Your task to perform on an android device: Show the shopping cart on costco.com. Search for jbl charge 4 on costco.com, select the first entry, add it to the cart, then select checkout. Image 0: 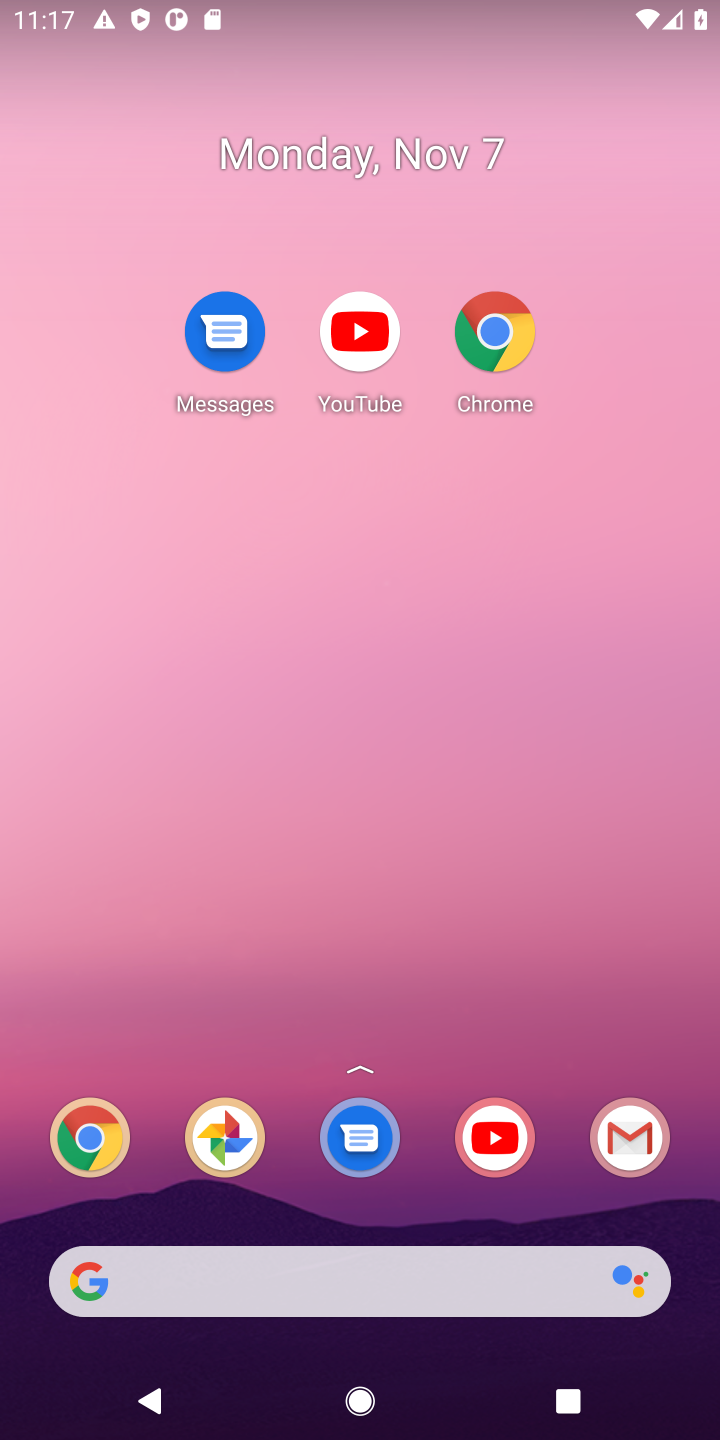
Step 0: drag from (444, 1218) to (378, 267)
Your task to perform on an android device: Show the shopping cart on costco.com. Search for jbl charge 4 on costco.com, select the first entry, add it to the cart, then select checkout. Image 1: 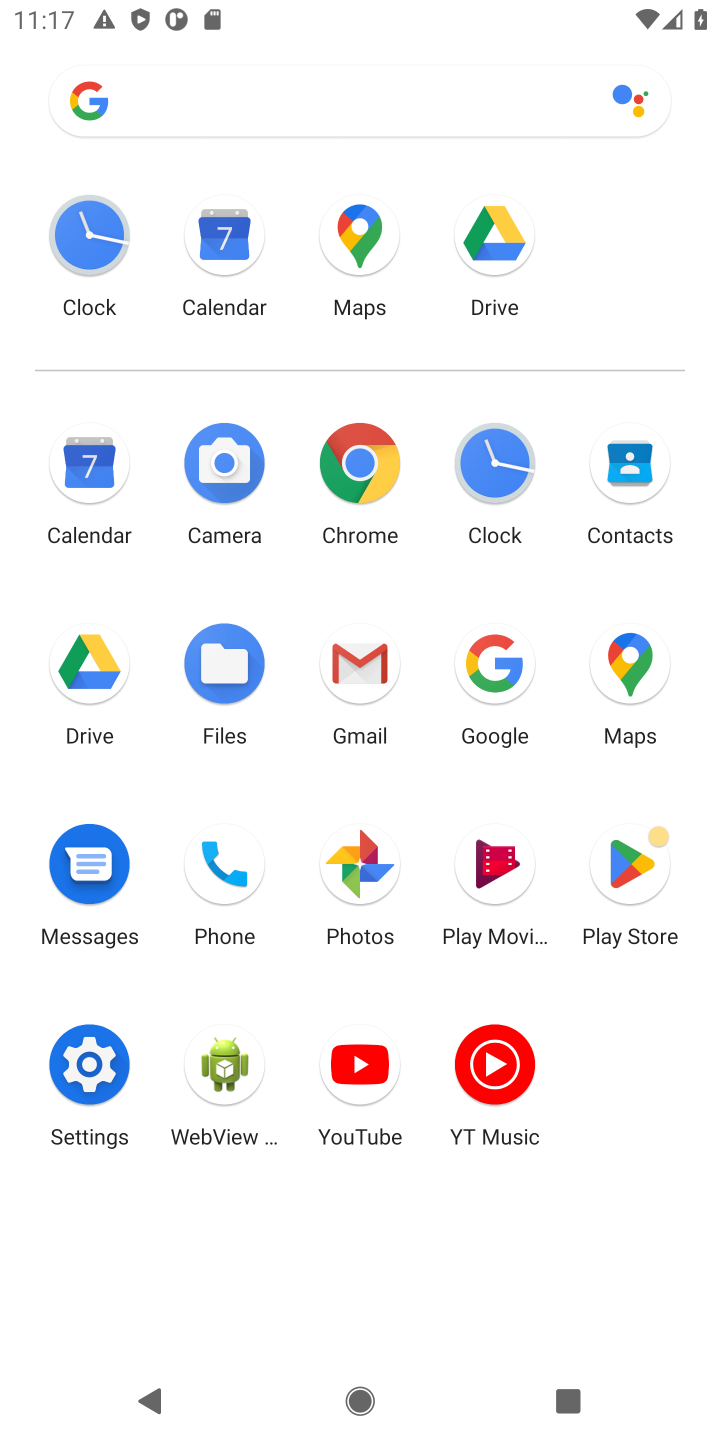
Step 1: click (364, 463)
Your task to perform on an android device: Show the shopping cart on costco.com. Search for jbl charge 4 on costco.com, select the first entry, add it to the cart, then select checkout. Image 2: 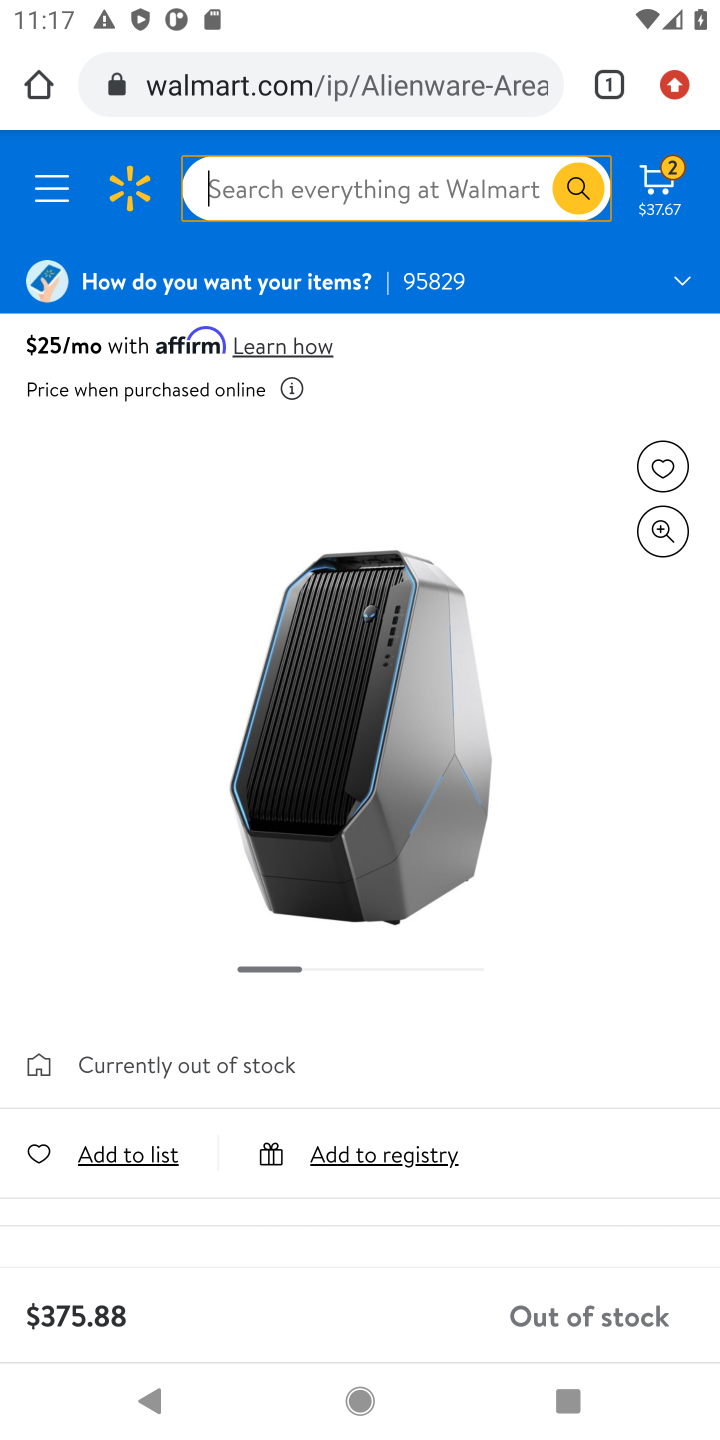
Step 2: click (458, 76)
Your task to perform on an android device: Show the shopping cart on costco.com. Search for jbl charge 4 on costco.com, select the first entry, add it to the cart, then select checkout. Image 3: 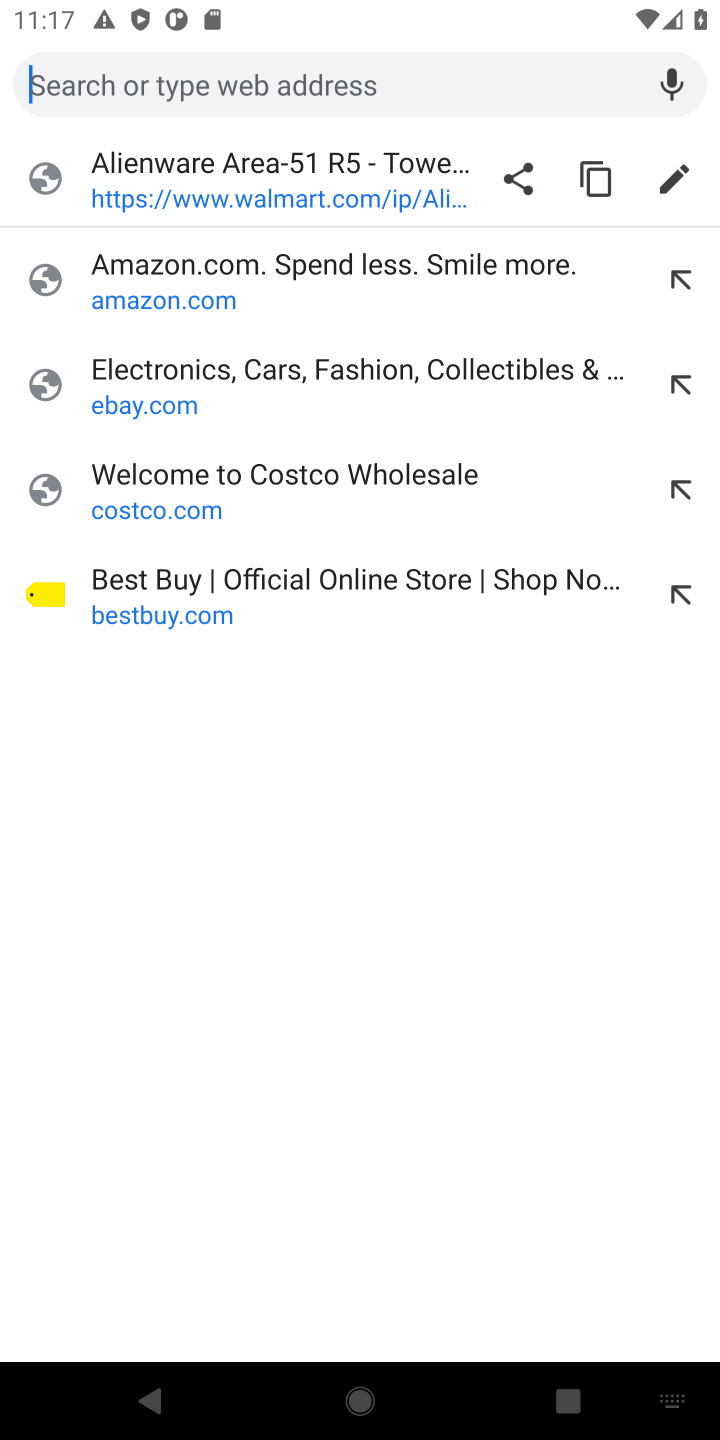
Step 3: type "costco.com"
Your task to perform on an android device: Show the shopping cart on costco.com. Search for jbl charge 4 on costco.com, select the first entry, add it to the cart, then select checkout. Image 4: 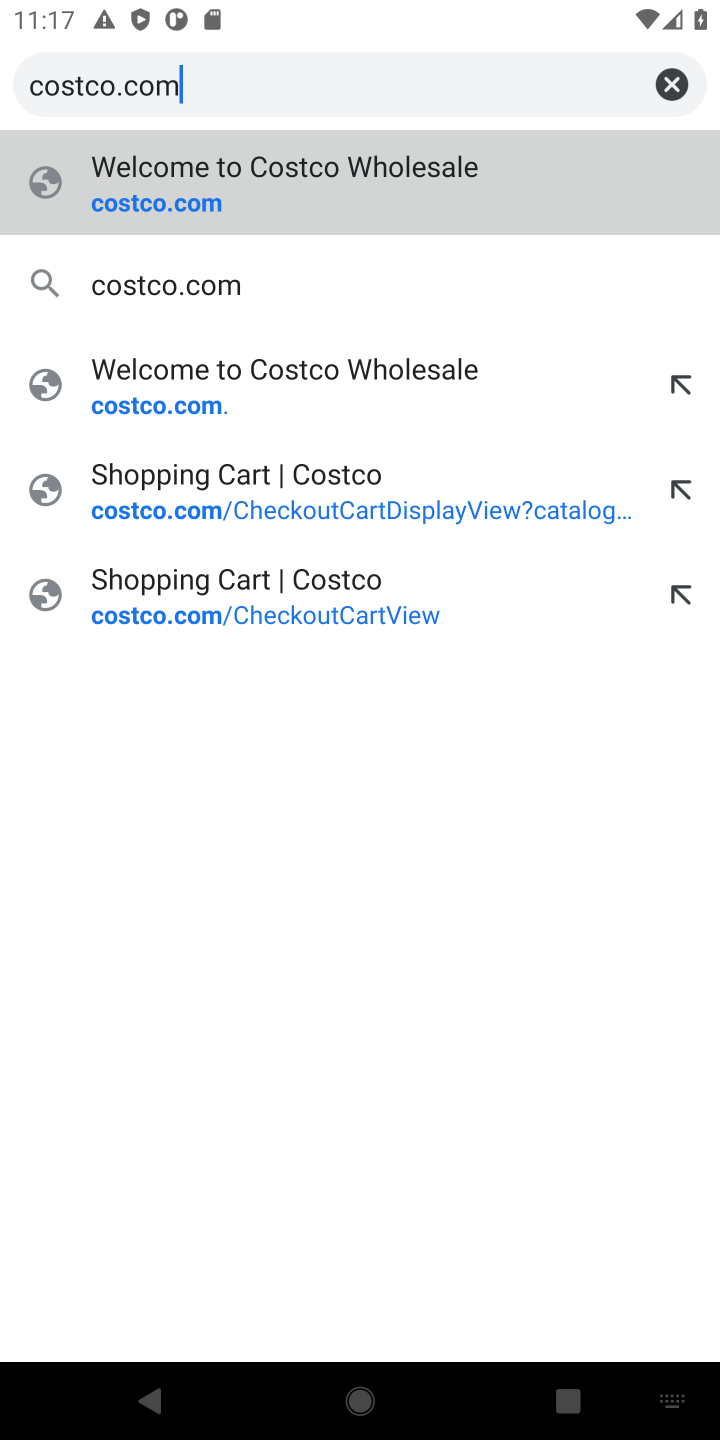
Step 4: press enter
Your task to perform on an android device: Show the shopping cart on costco.com. Search for jbl charge 4 on costco.com, select the first entry, add it to the cart, then select checkout. Image 5: 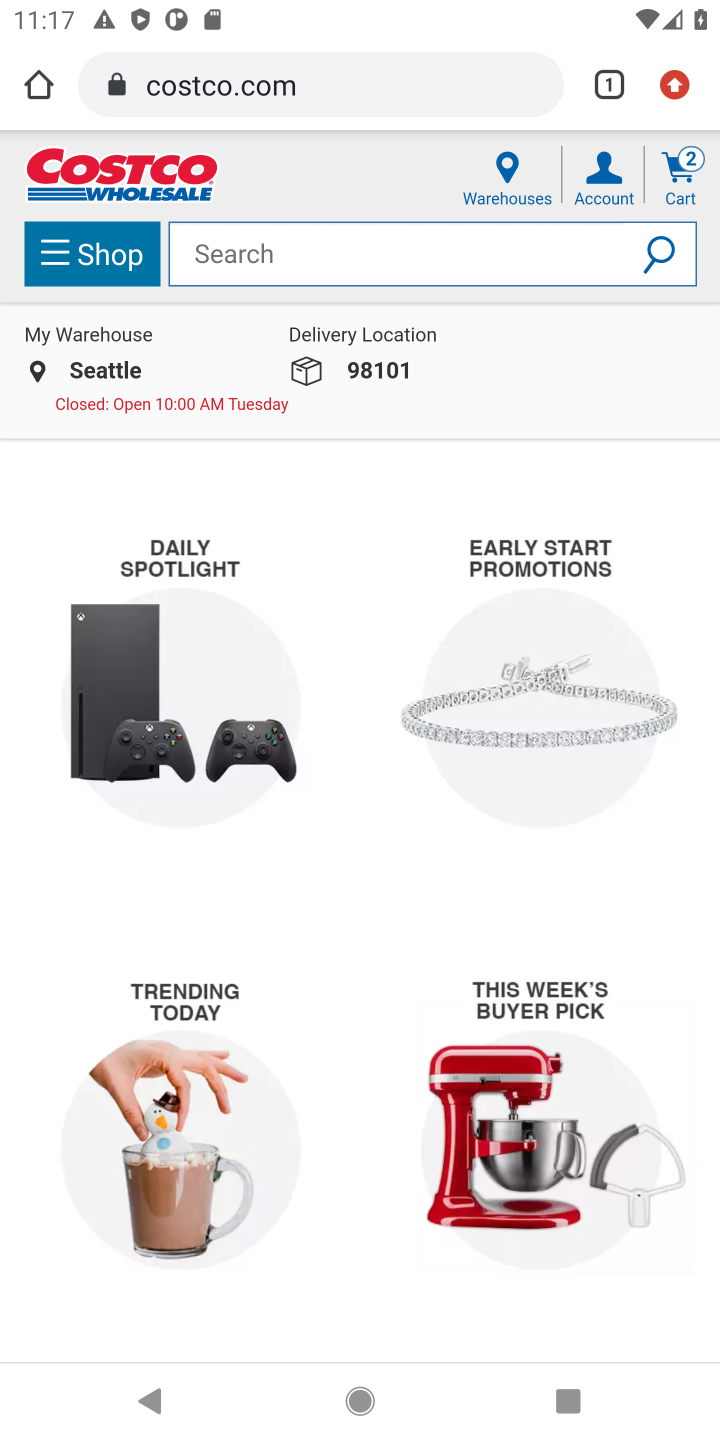
Step 5: click (690, 162)
Your task to perform on an android device: Show the shopping cart on costco.com. Search for jbl charge 4 on costco.com, select the first entry, add it to the cart, then select checkout. Image 6: 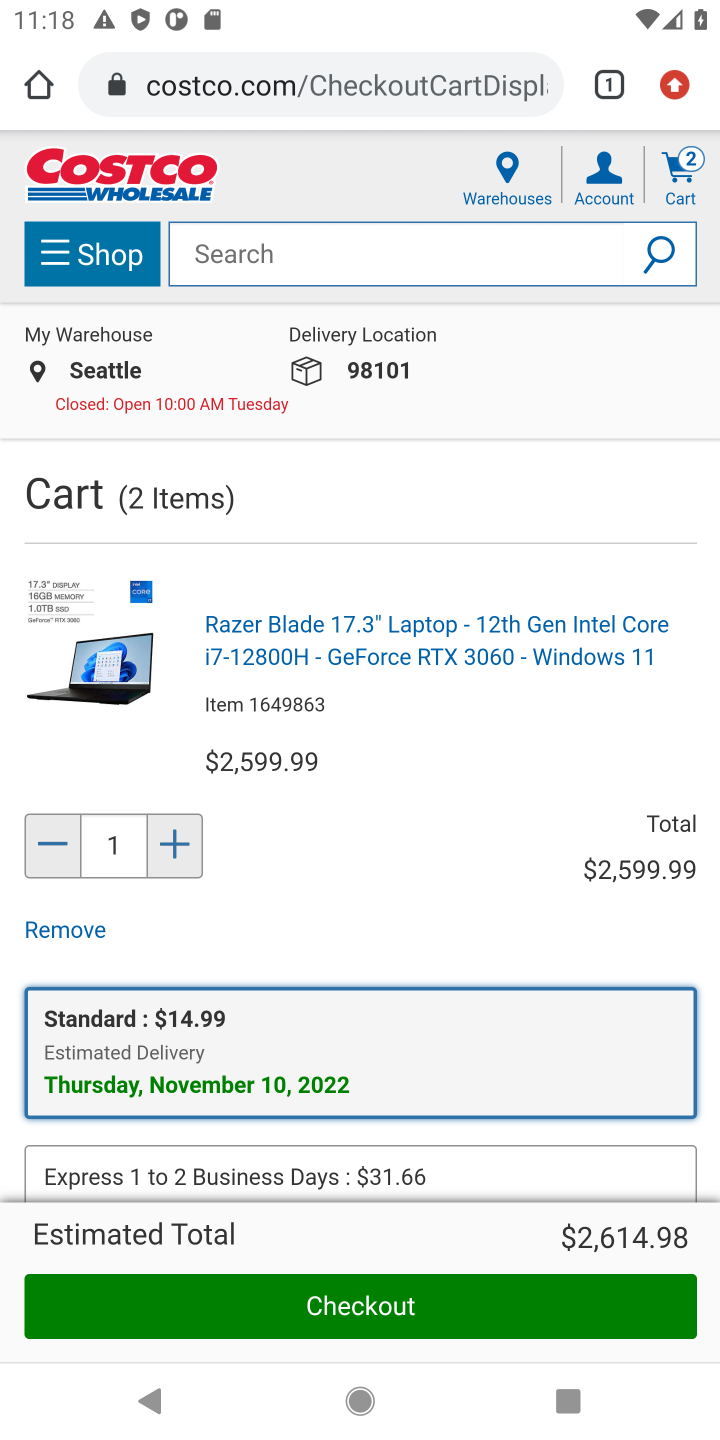
Step 6: click (683, 181)
Your task to perform on an android device: Show the shopping cart on costco.com. Search for jbl charge 4 on costco.com, select the first entry, add it to the cart, then select checkout. Image 7: 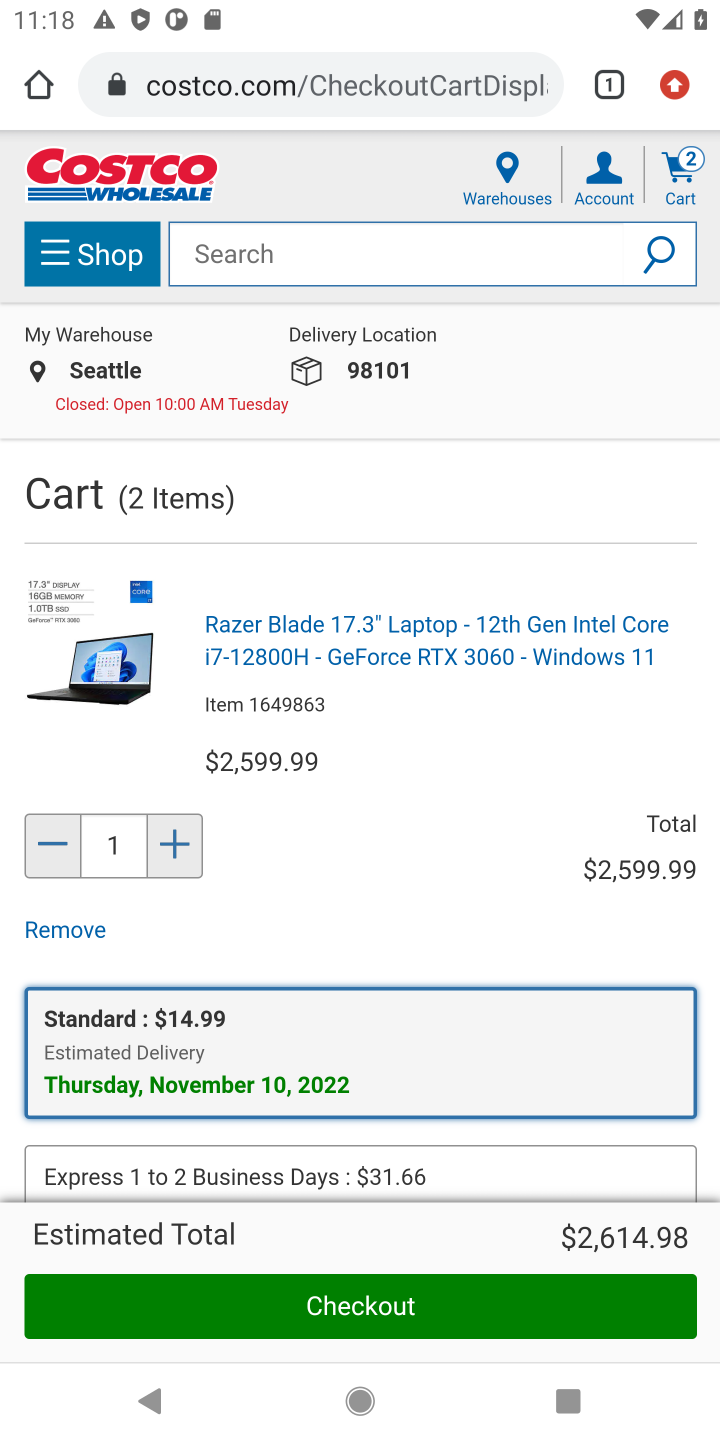
Step 7: click (480, 264)
Your task to perform on an android device: Show the shopping cart on costco.com. Search for jbl charge 4 on costco.com, select the first entry, add it to the cart, then select checkout. Image 8: 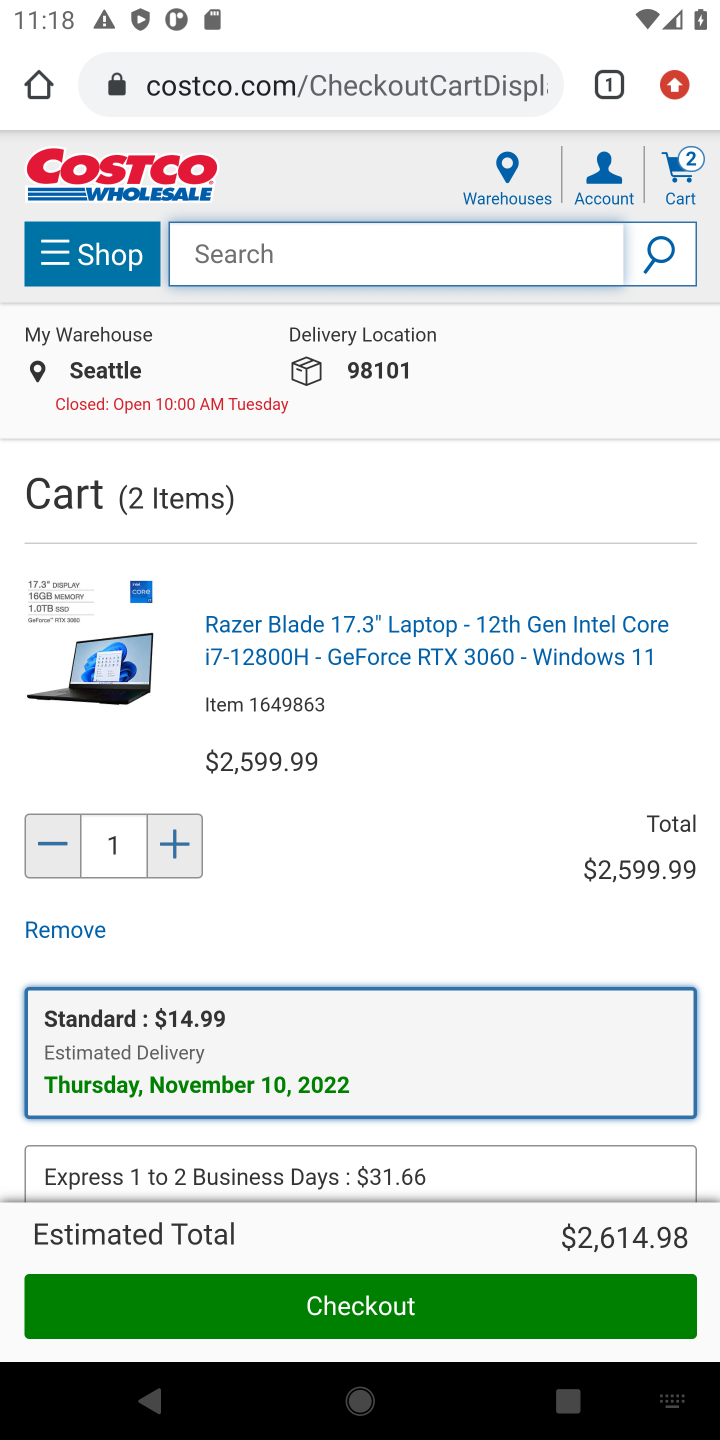
Step 8: type "jbl charge 4"
Your task to perform on an android device: Show the shopping cart on costco.com. Search for jbl charge 4 on costco.com, select the first entry, add it to the cart, then select checkout. Image 9: 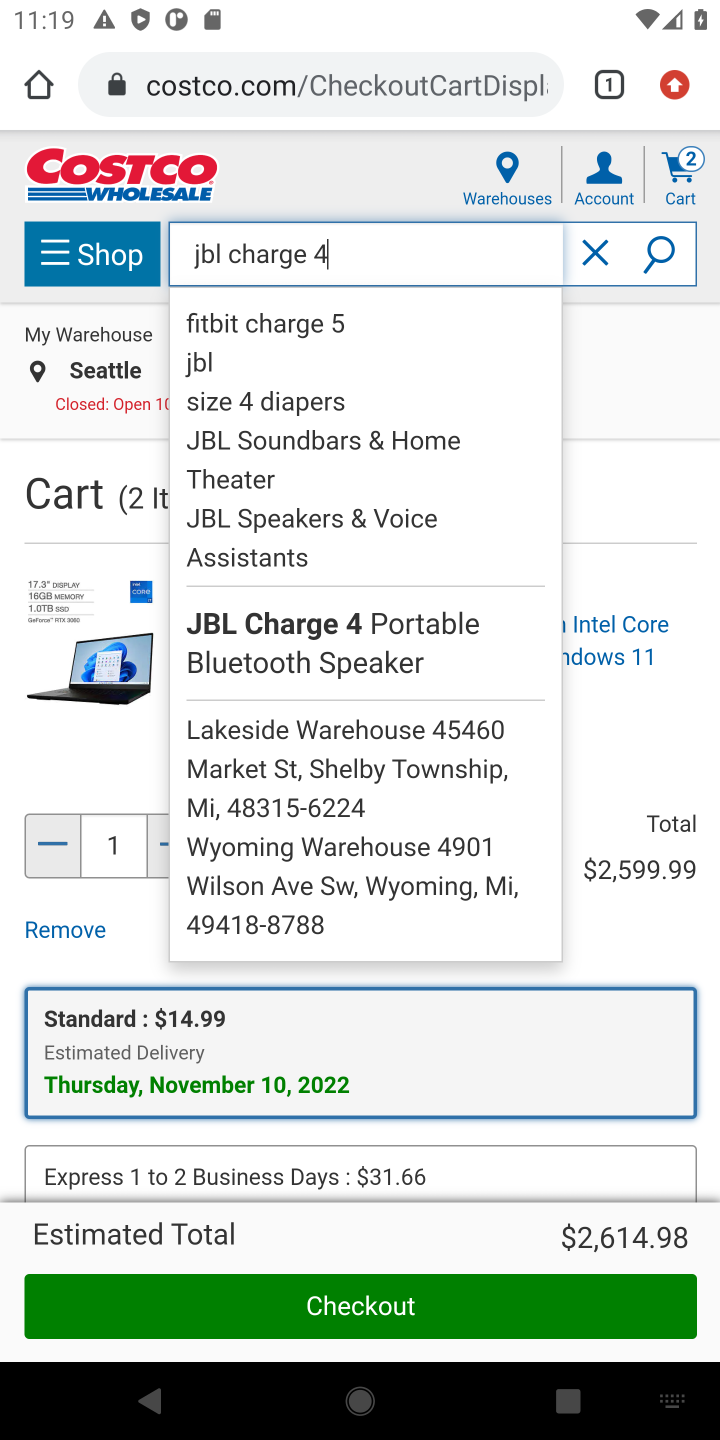
Step 9: press enter
Your task to perform on an android device: Show the shopping cart on costco.com. Search for jbl charge 4 on costco.com, select the first entry, add it to the cart, then select checkout. Image 10: 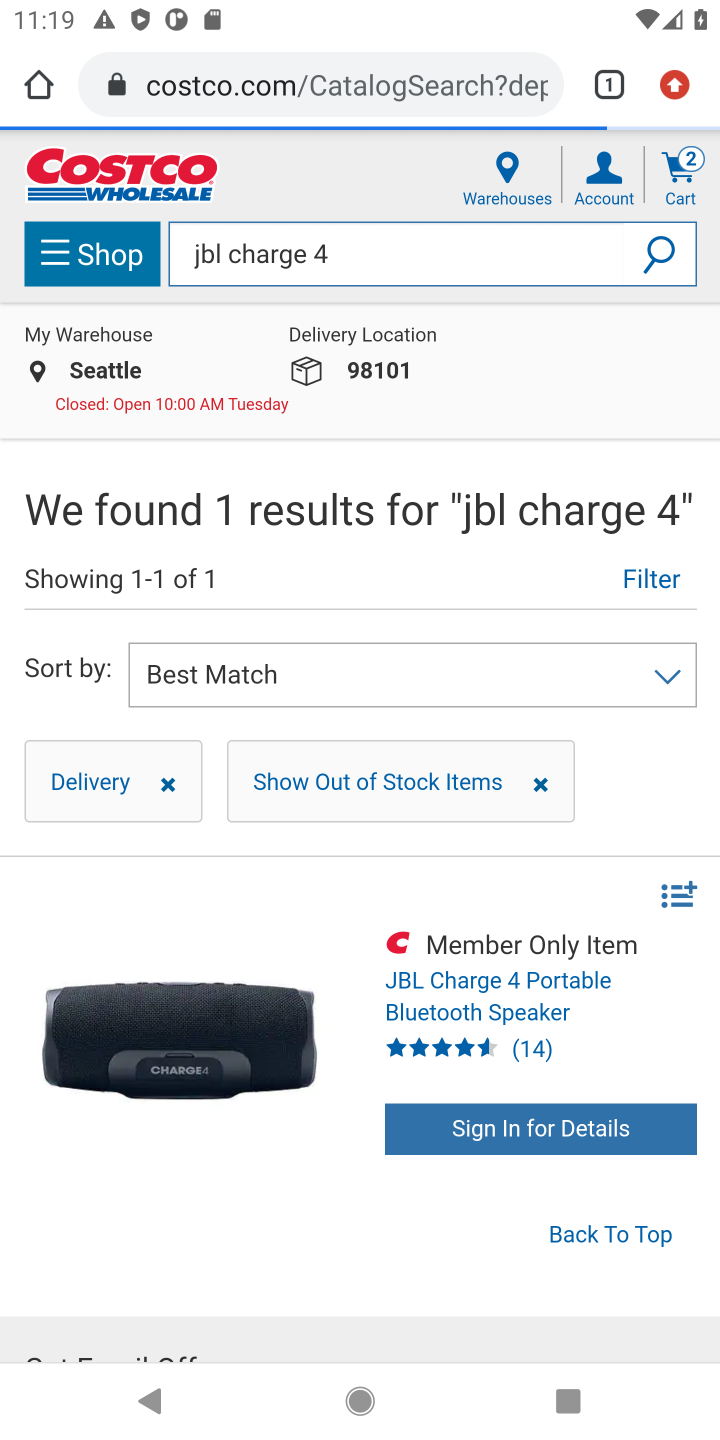
Step 10: drag from (595, 1078) to (542, 586)
Your task to perform on an android device: Show the shopping cart on costco.com. Search for jbl charge 4 on costco.com, select the first entry, add it to the cart, then select checkout. Image 11: 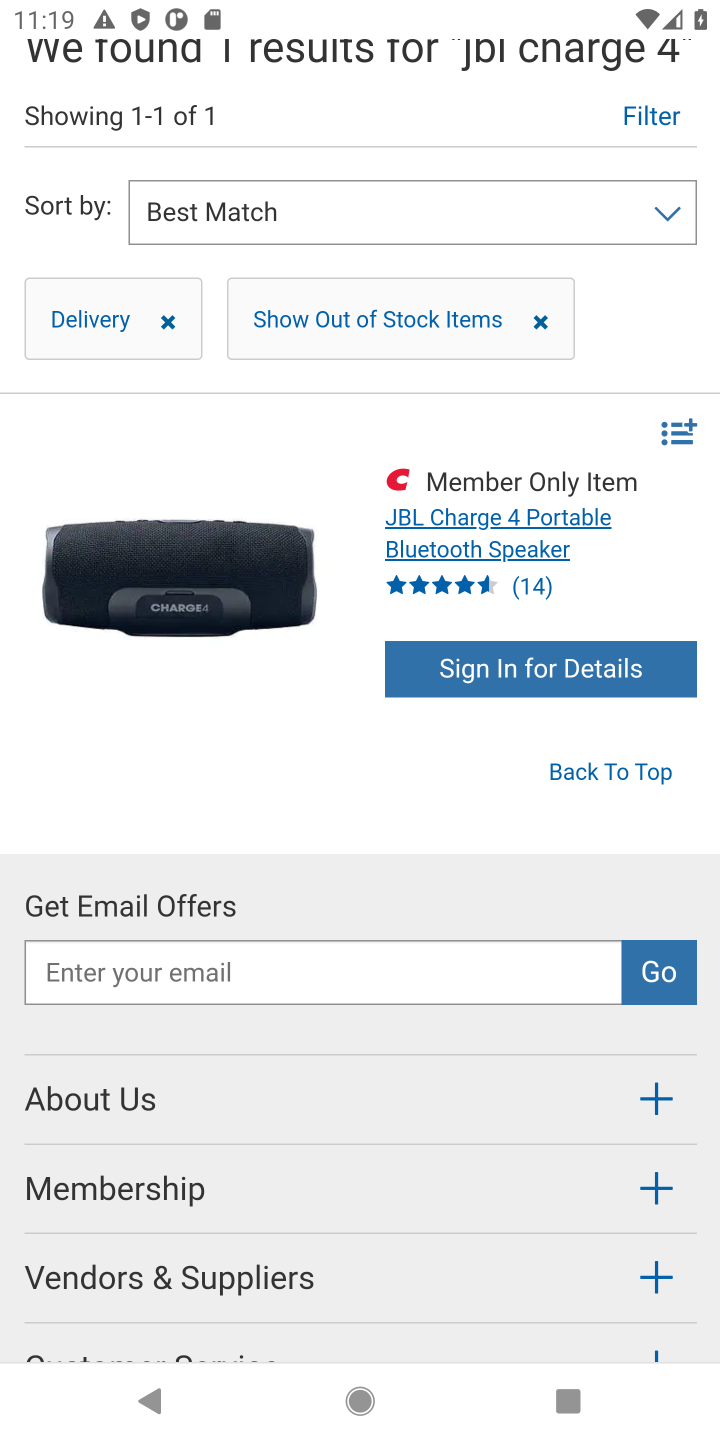
Step 11: click (466, 525)
Your task to perform on an android device: Show the shopping cart on costco.com. Search for jbl charge 4 on costco.com, select the first entry, add it to the cart, then select checkout. Image 12: 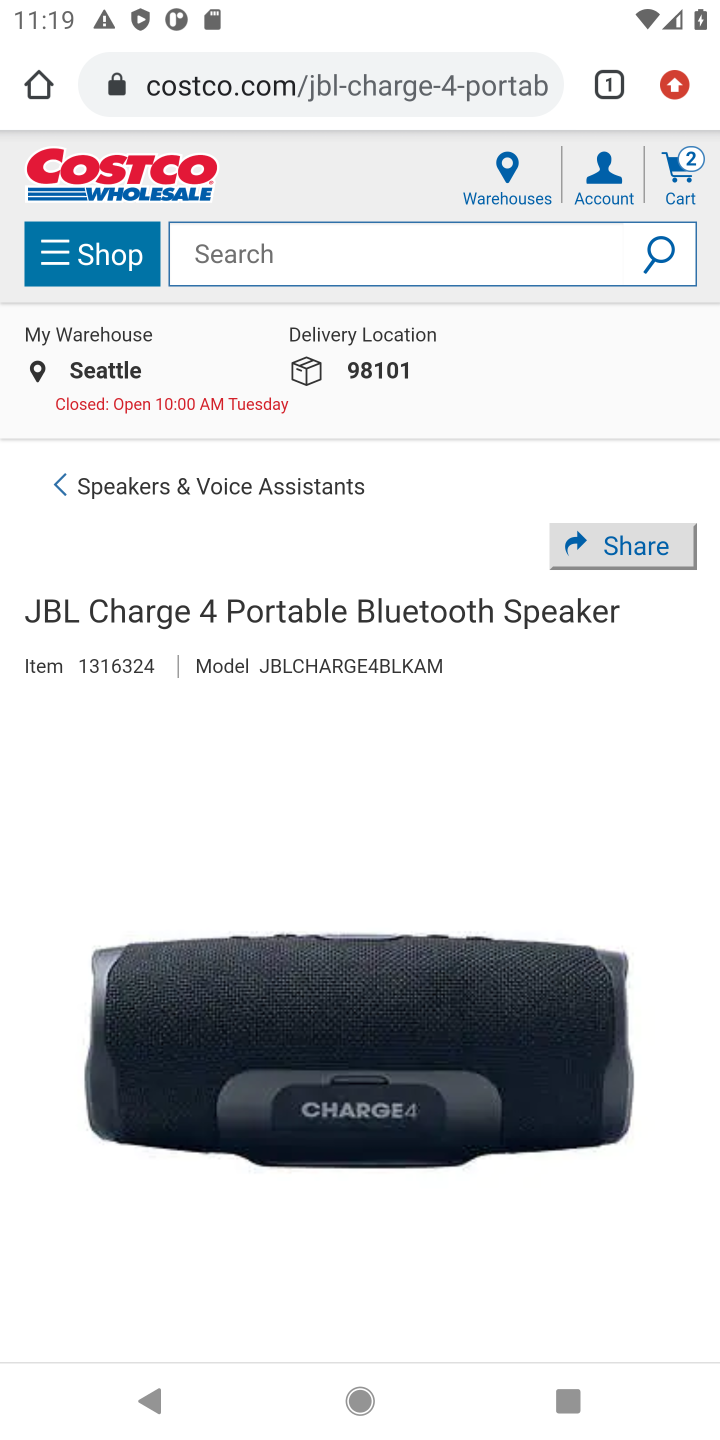
Step 12: task complete